Your task to perform on an android device: toggle data saver in the chrome app Image 0: 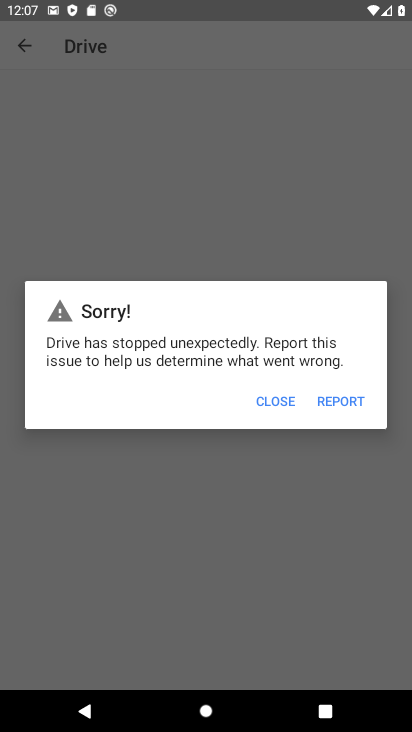
Step 0: press home button
Your task to perform on an android device: toggle data saver in the chrome app Image 1: 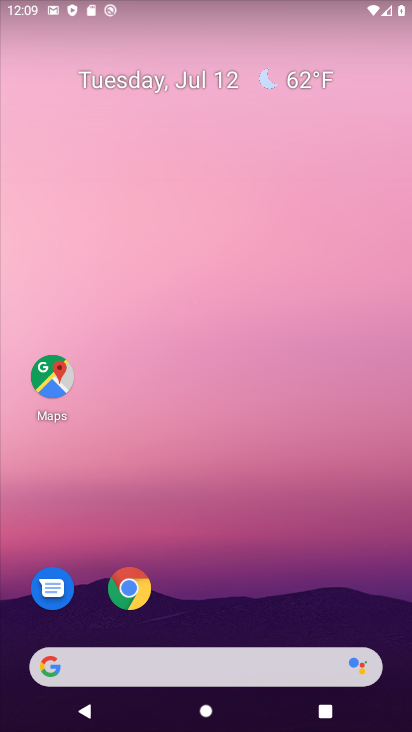
Step 1: click (107, 583)
Your task to perform on an android device: toggle data saver in the chrome app Image 2: 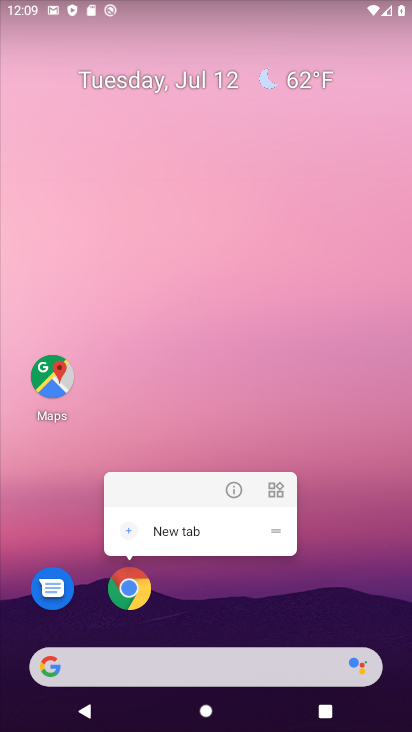
Step 2: click (144, 610)
Your task to perform on an android device: toggle data saver in the chrome app Image 3: 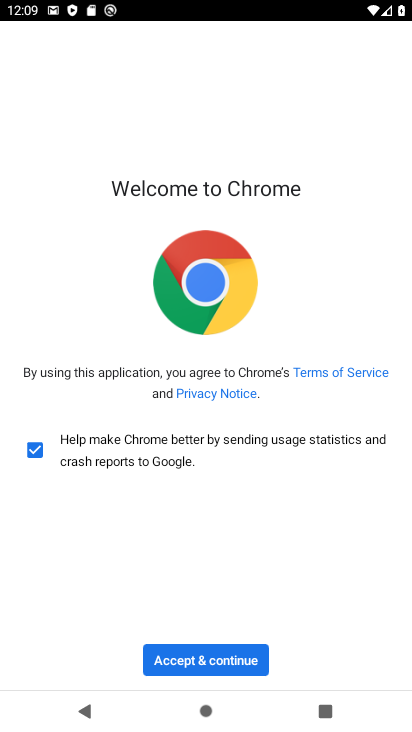
Step 3: click (172, 664)
Your task to perform on an android device: toggle data saver in the chrome app Image 4: 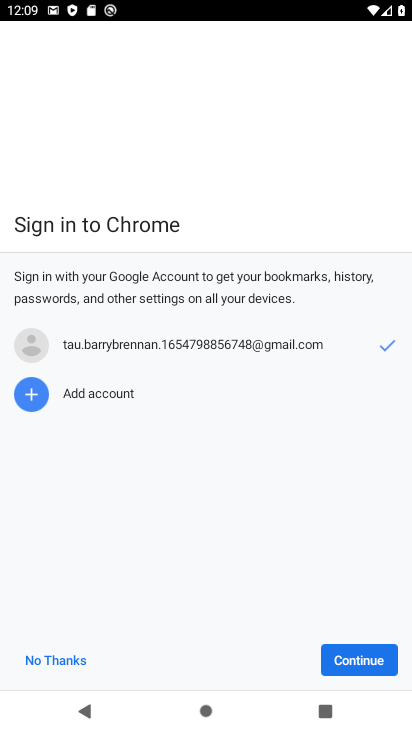
Step 4: click (352, 667)
Your task to perform on an android device: toggle data saver in the chrome app Image 5: 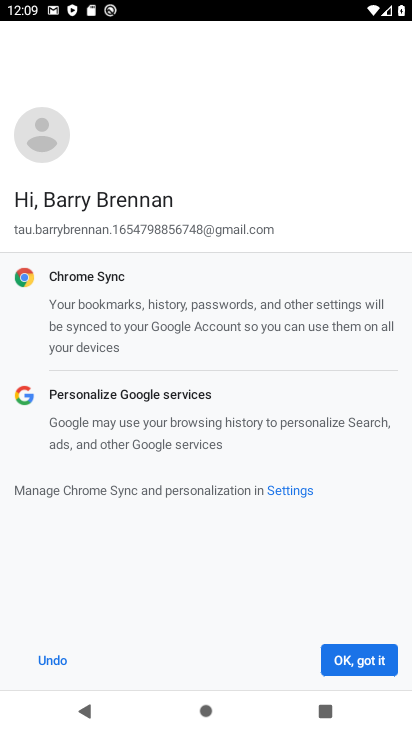
Step 5: click (382, 652)
Your task to perform on an android device: toggle data saver in the chrome app Image 6: 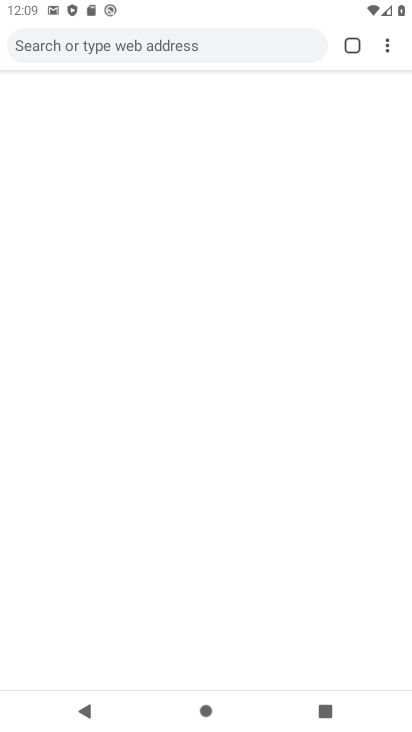
Step 6: click (388, 36)
Your task to perform on an android device: toggle data saver in the chrome app Image 7: 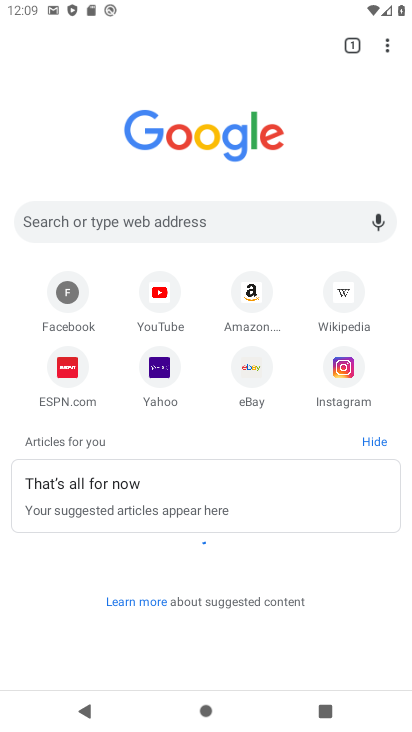
Step 7: click (383, 44)
Your task to perform on an android device: toggle data saver in the chrome app Image 8: 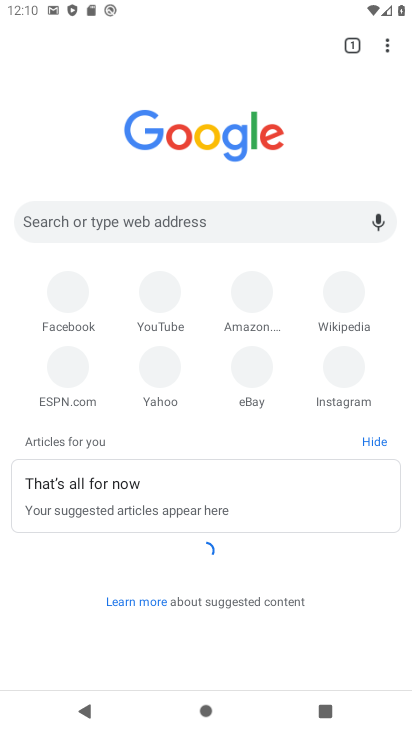
Step 8: click (390, 37)
Your task to perform on an android device: toggle data saver in the chrome app Image 9: 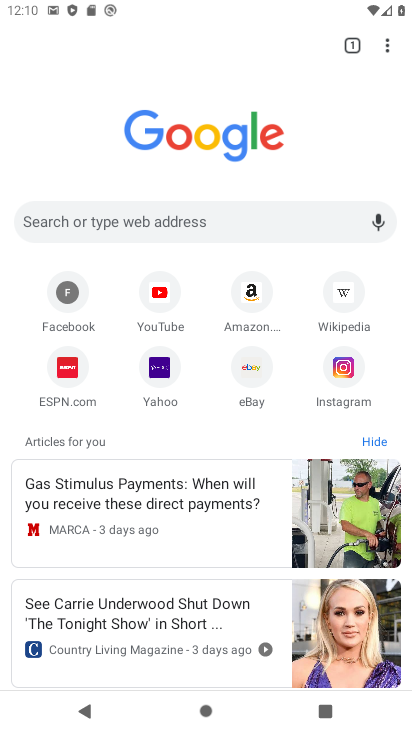
Step 9: click (379, 44)
Your task to perform on an android device: toggle data saver in the chrome app Image 10: 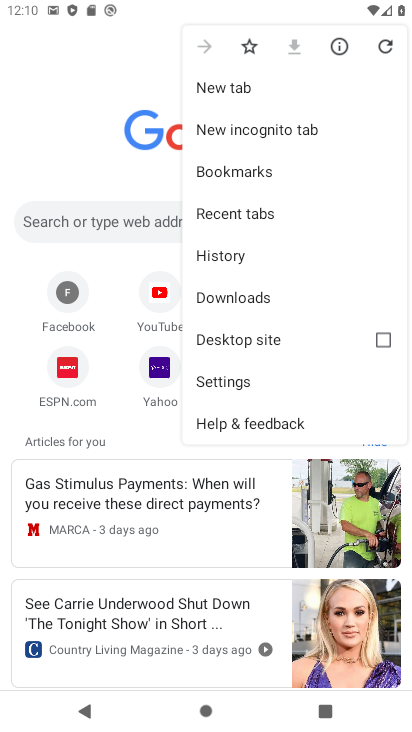
Step 10: click (252, 385)
Your task to perform on an android device: toggle data saver in the chrome app Image 11: 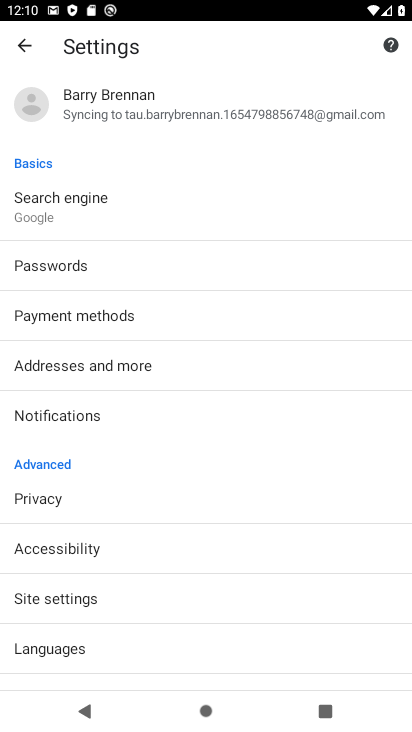
Step 11: drag from (134, 603) to (142, 241)
Your task to perform on an android device: toggle data saver in the chrome app Image 12: 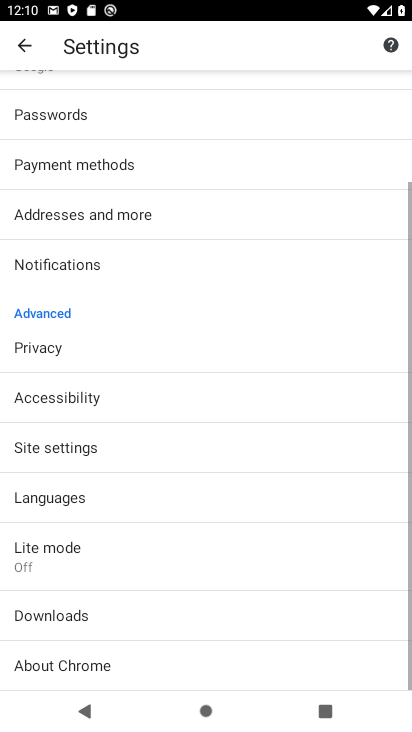
Step 12: click (23, 548)
Your task to perform on an android device: toggle data saver in the chrome app Image 13: 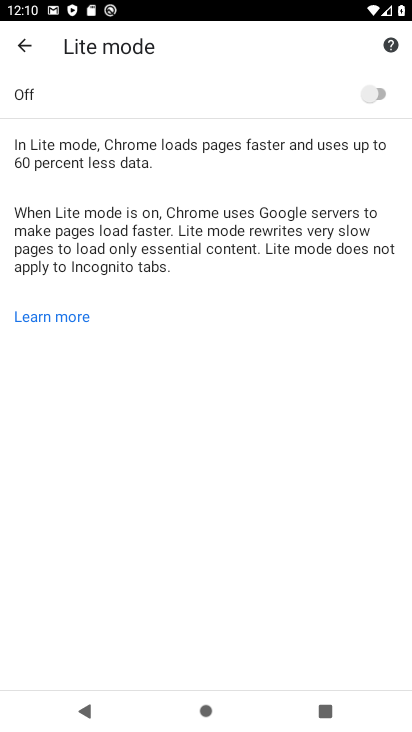
Step 13: click (377, 100)
Your task to perform on an android device: toggle data saver in the chrome app Image 14: 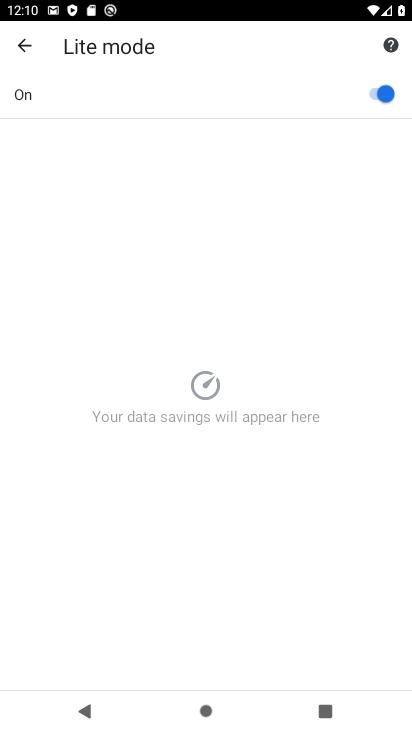
Step 14: task complete